Your task to perform on an android device: refresh tabs in the chrome app Image 0: 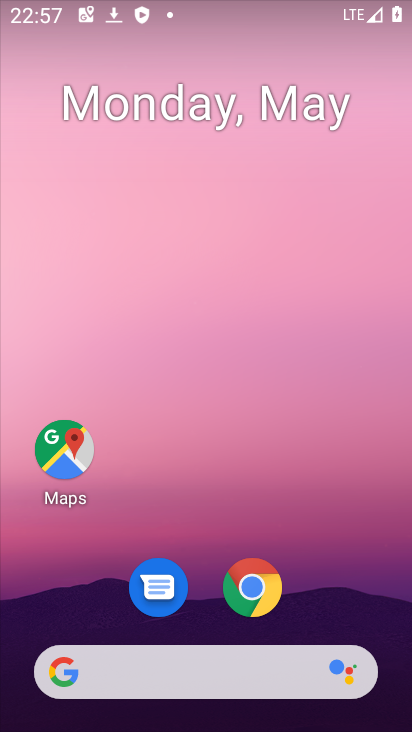
Step 0: click (268, 579)
Your task to perform on an android device: refresh tabs in the chrome app Image 1: 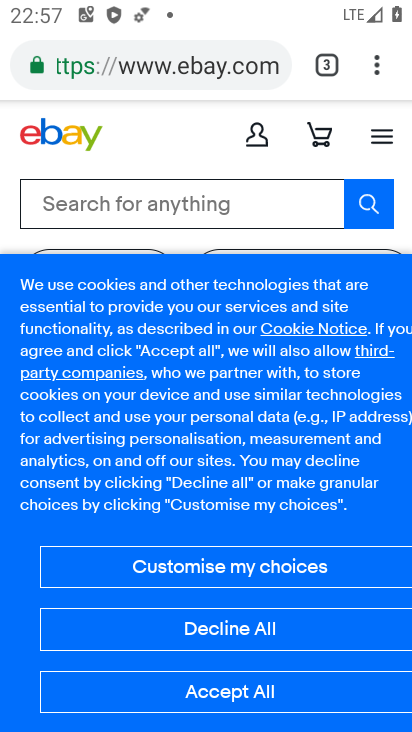
Step 1: press home button
Your task to perform on an android device: refresh tabs in the chrome app Image 2: 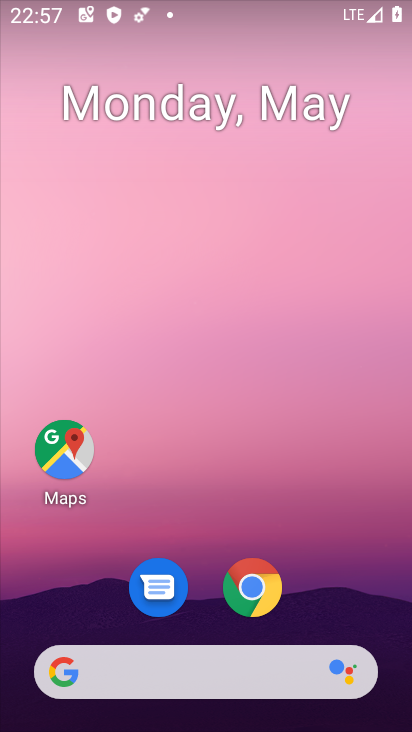
Step 2: click (255, 584)
Your task to perform on an android device: refresh tabs in the chrome app Image 3: 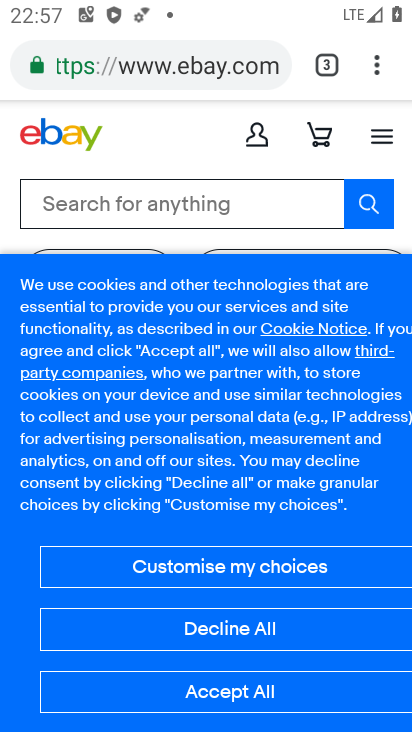
Step 3: click (376, 70)
Your task to perform on an android device: refresh tabs in the chrome app Image 4: 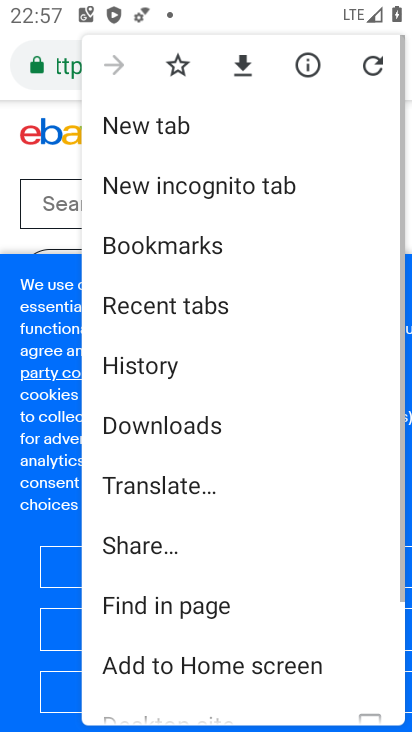
Step 4: click (373, 64)
Your task to perform on an android device: refresh tabs in the chrome app Image 5: 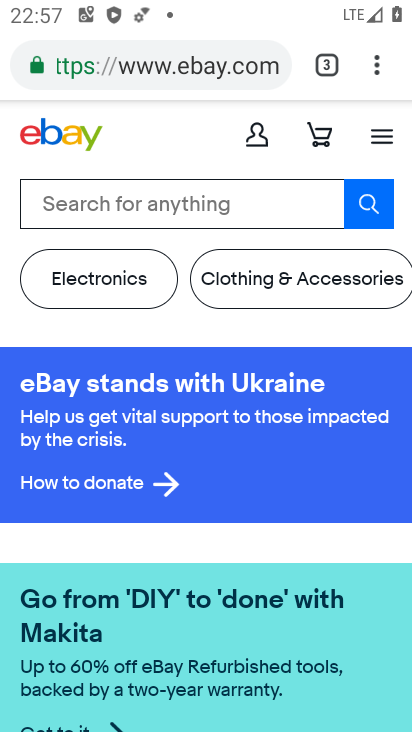
Step 5: task complete